Your task to perform on an android device: What's the price of the Galaxy phone? Image 0: 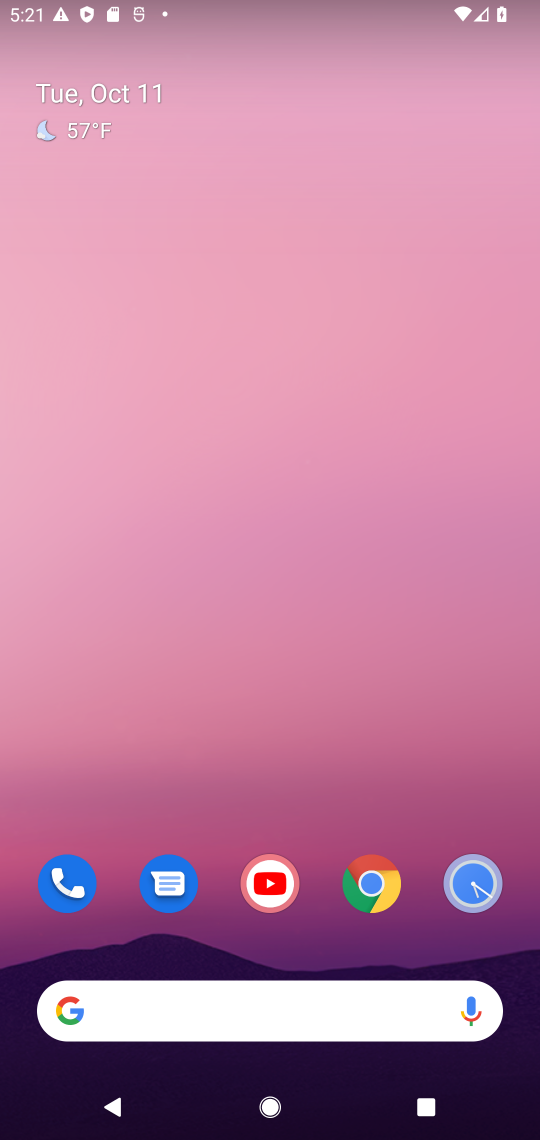
Step 0: drag from (284, 658) to (238, 166)
Your task to perform on an android device: What's the price of the Galaxy phone? Image 1: 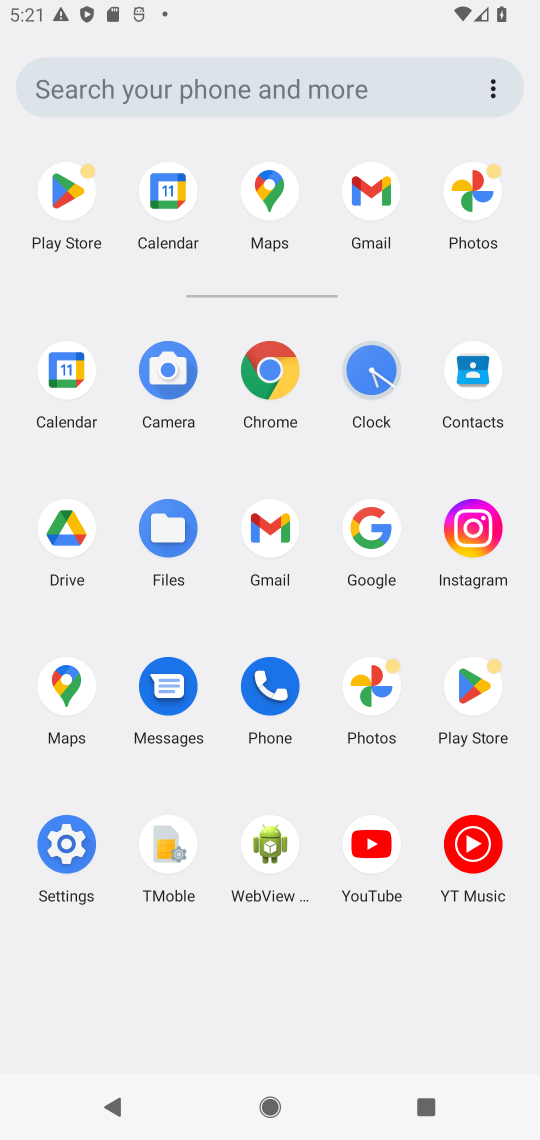
Step 1: click (270, 378)
Your task to perform on an android device: What's the price of the Galaxy phone? Image 2: 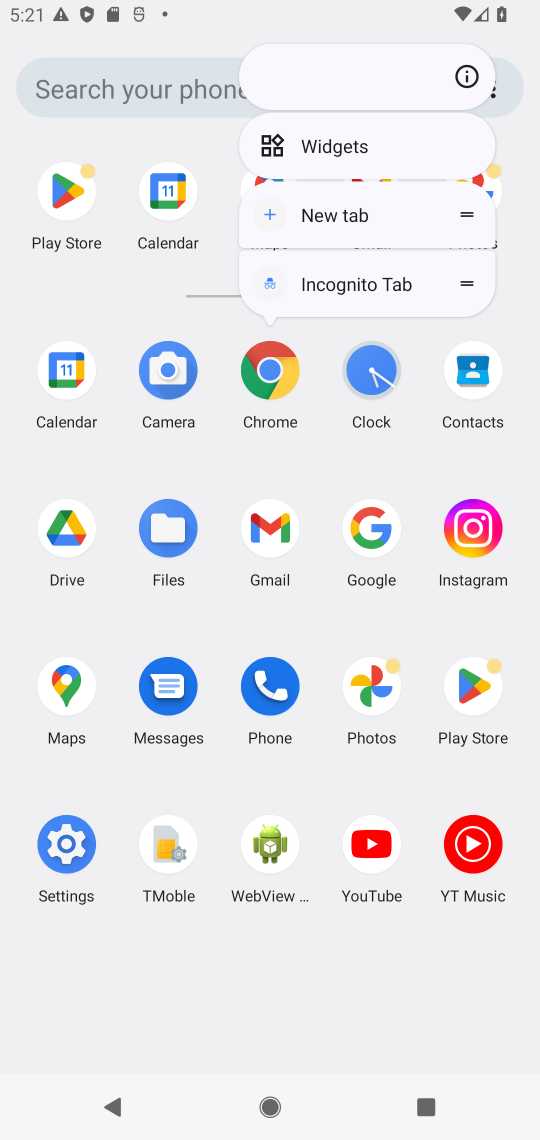
Step 2: click (270, 378)
Your task to perform on an android device: What's the price of the Galaxy phone? Image 3: 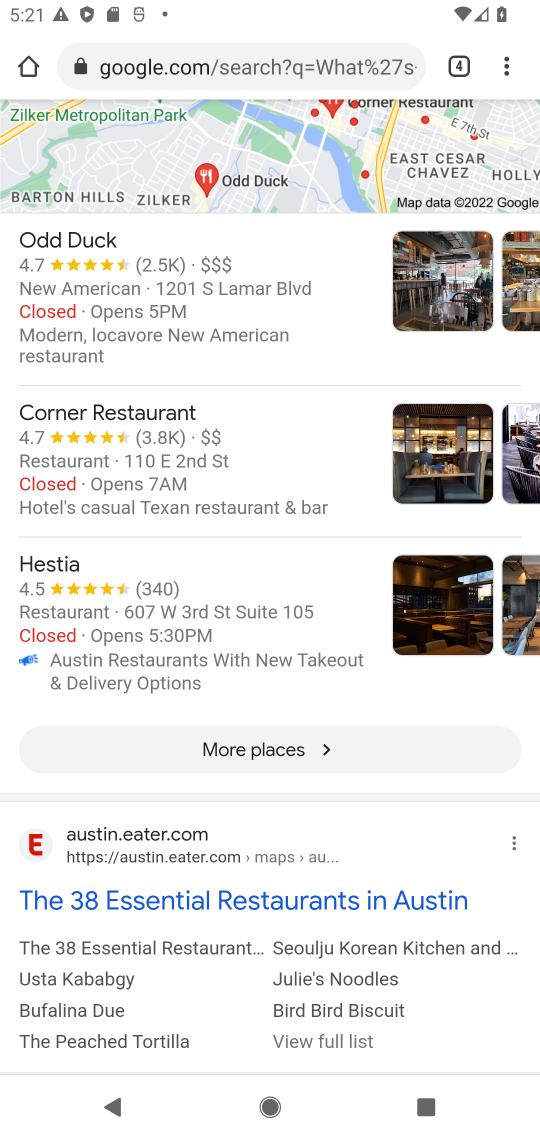
Step 3: click (275, 63)
Your task to perform on an android device: What's the price of the Galaxy phone? Image 4: 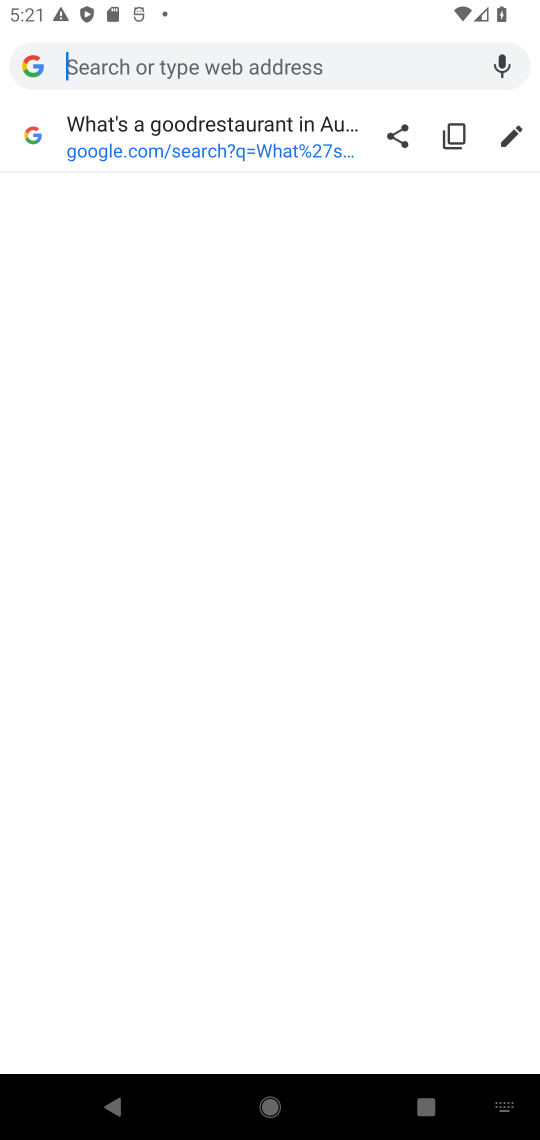
Step 4: type "What's the price of the Galaxy phone?"
Your task to perform on an android device: What's the price of the Galaxy phone? Image 5: 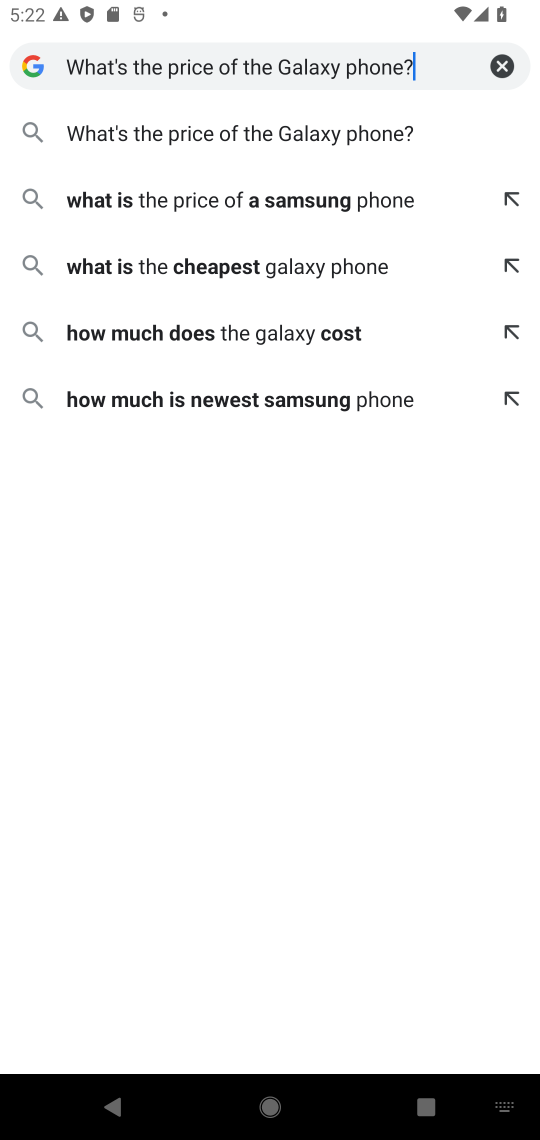
Step 5: press enter
Your task to perform on an android device: What's the price of the Galaxy phone? Image 6: 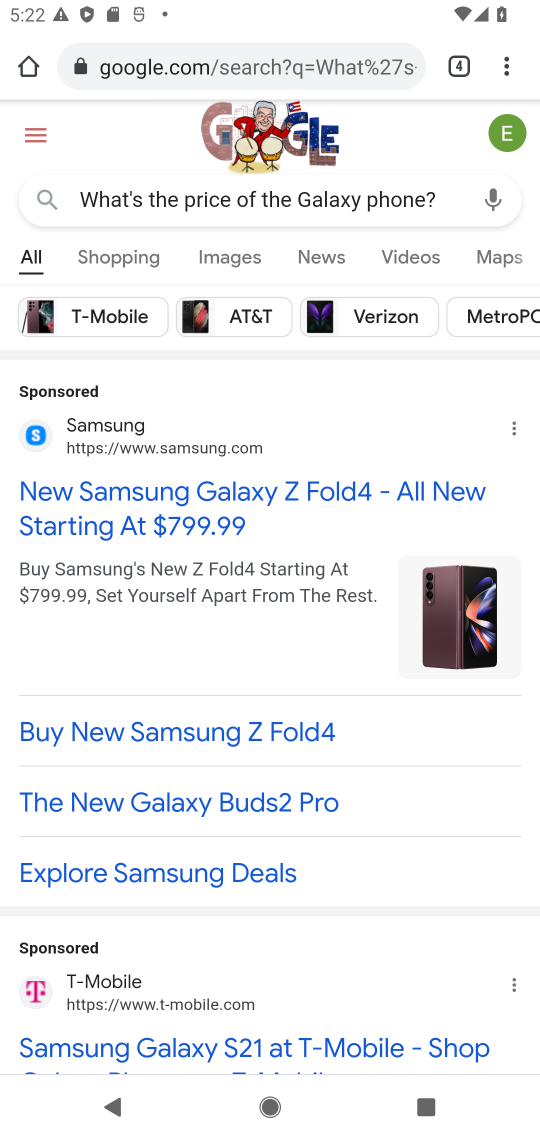
Step 6: task complete